Your task to perform on an android device: Open Youtube and go to the subscriptions tab Image 0: 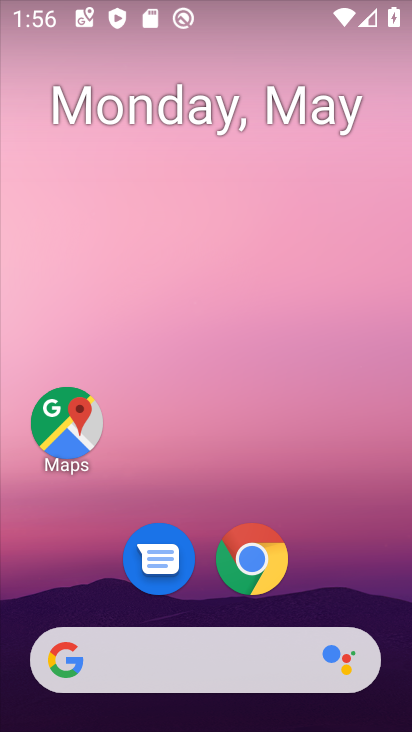
Step 0: drag from (296, 707) to (282, 311)
Your task to perform on an android device: Open Youtube and go to the subscriptions tab Image 1: 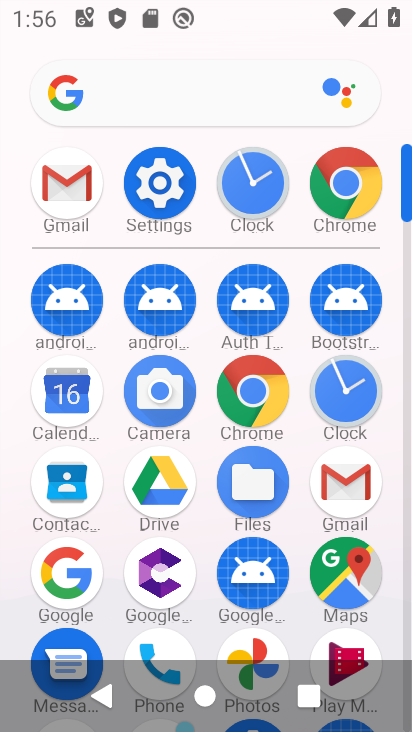
Step 1: drag from (281, 564) to (323, 131)
Your task to perform on an android device: Open Youtube and go to the subscriptions tab Image 2: 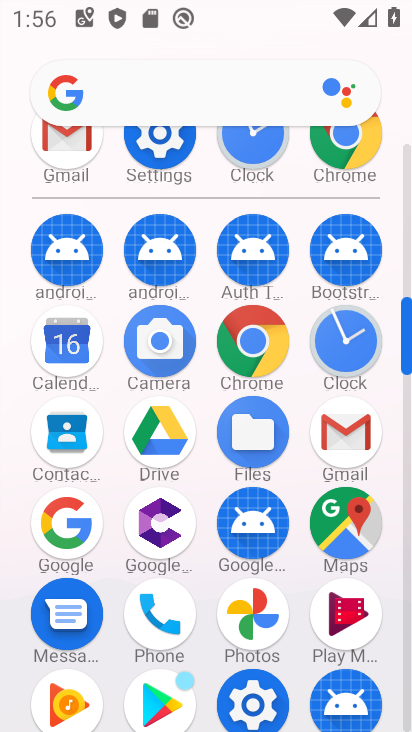
Step 2: drag from (209, 690) to (249, 284)
Your task to perform on an android device: Open Youtube and go to the subscriptions tab Image 3: 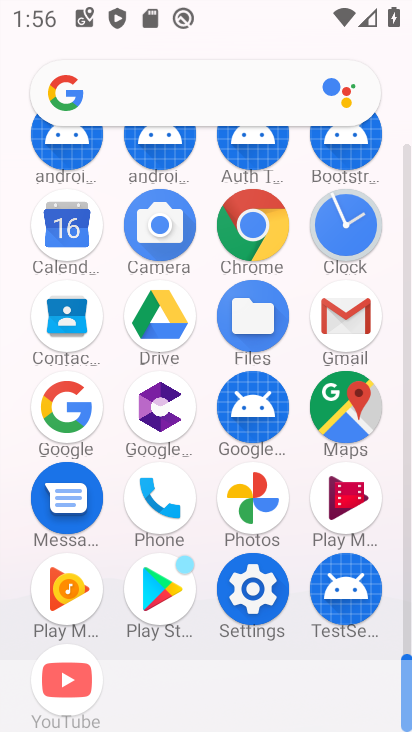
Step 3: click (73, 685)
Your task to perform on an android device: Open Youtube and go to the subscriptions tab Image 4: 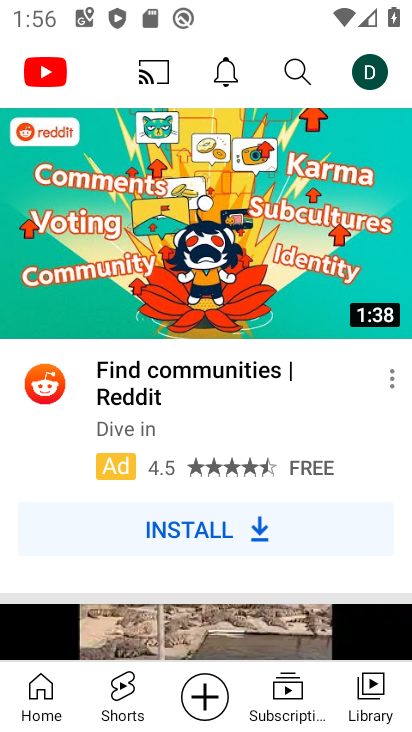
Step 4: click (280, 699)
Your task to perform on an android device: Open Youtube and go to the subscriptions tab Image 5: 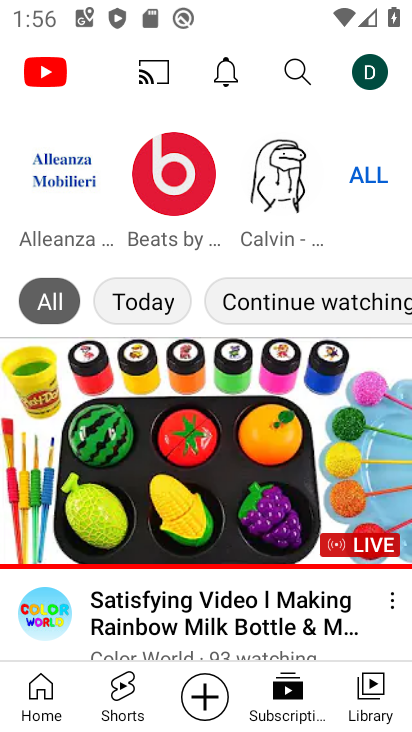
Step 5: task complete